Your task to perform on an android device: change text size in settings app Image 0: 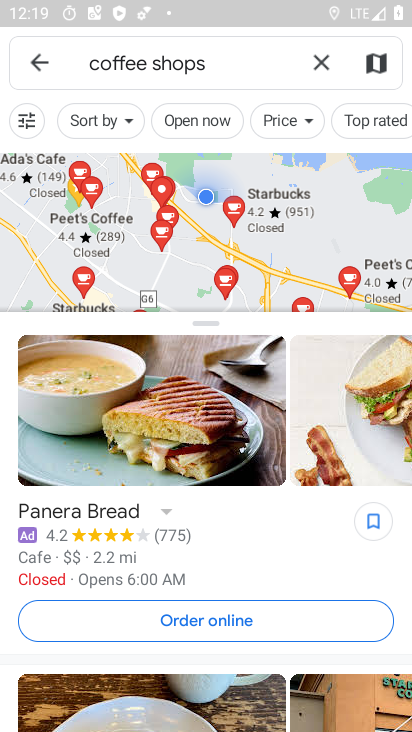
Step 0: press home button
Your task to perform on an android device: change text size in settings app Image 1: 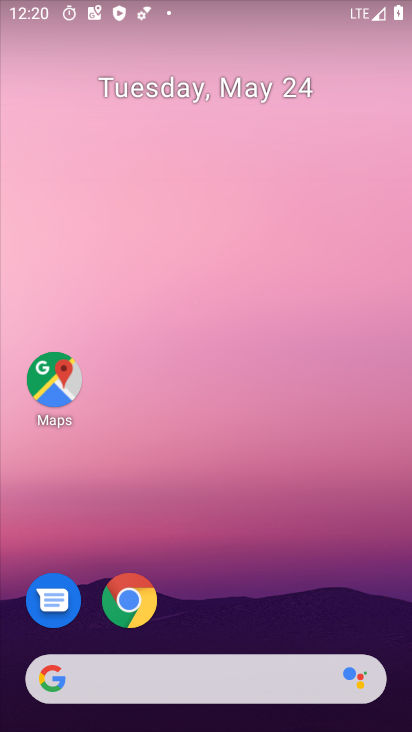
Step 1: drag from (280, 625) to (265, 160)
Your task to perform on an android device: change text size in settings app Image 2: 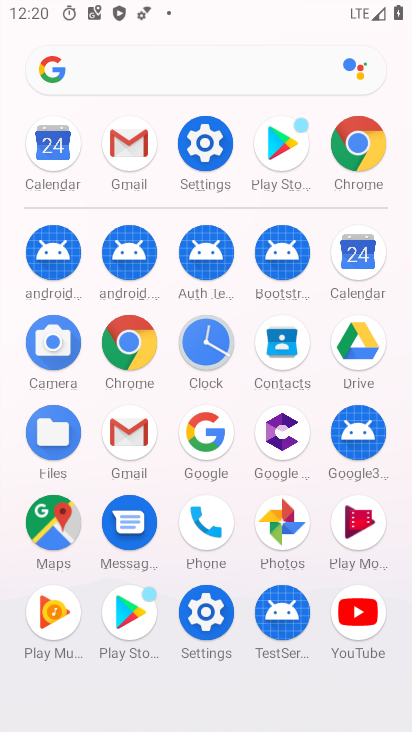
Step 2: click (207, 147)
Your task to perform on an android device: change text size in settings app Image 3: 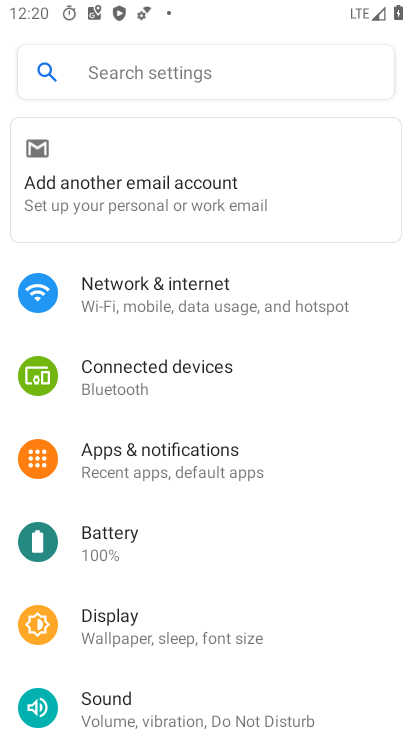
Step 3: drag from (166, 545) to (256, 115)
Your task to perform on an android device: change text size in settings app Image 4: 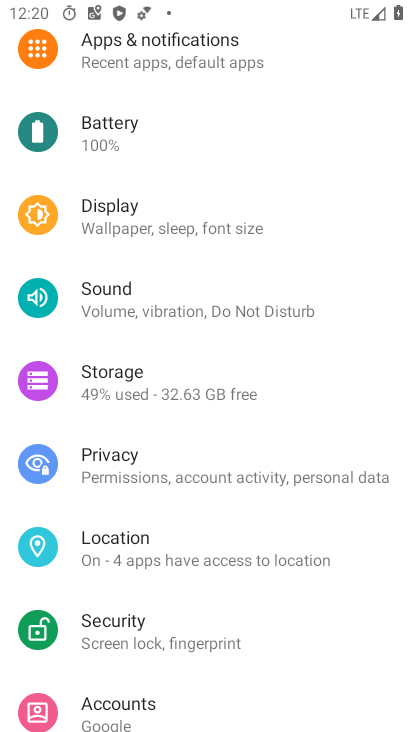
Step 4: drag from (194, 655) to (306, 174)
Your task to perform on an android device: change text size in settings app Image 5: 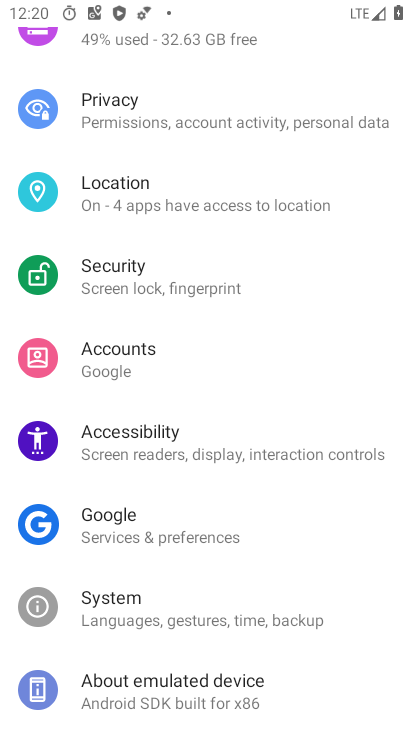
Step 5: click (138, 610)
Your task to perform on an android device: change text size in settings app Image 6: 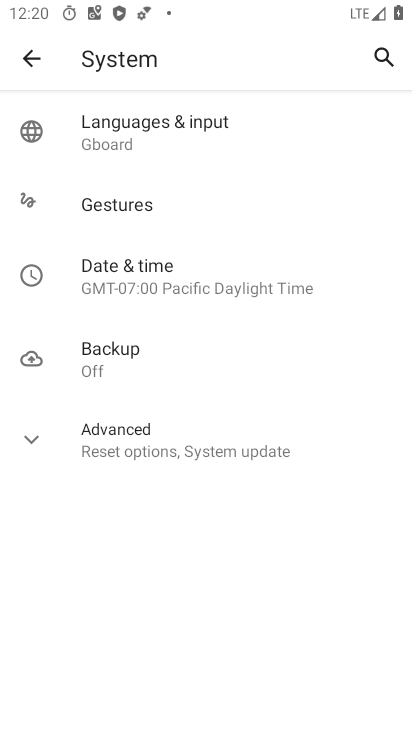
Step 6: click (148, 146)
Your task to perform on an android device: change text size in settings app Image 7: 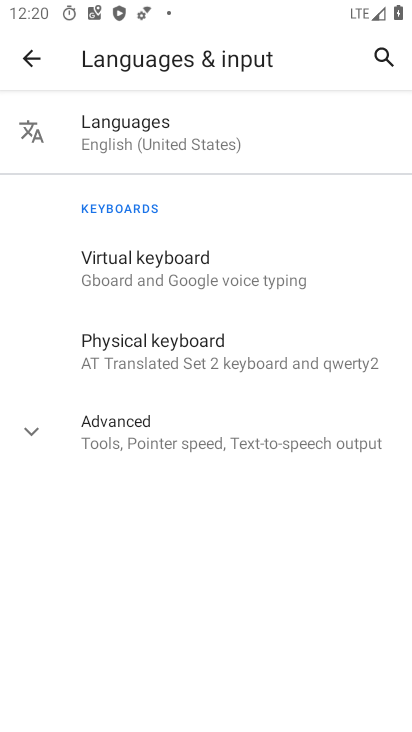
Step 7: click (139, 253)
Your task to perform on an android device: change text size in settings app Image 8: 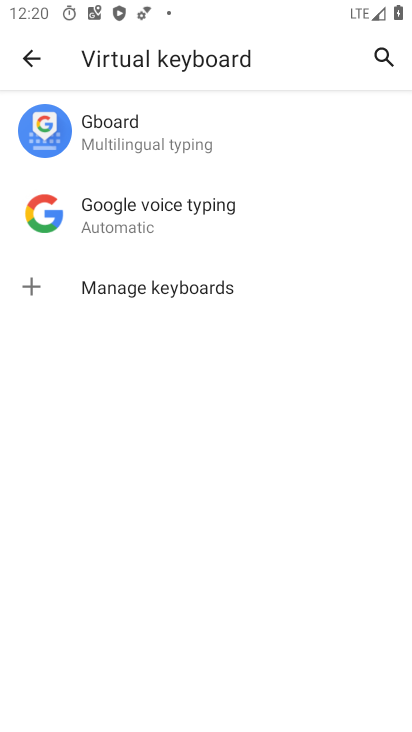
Step 8: click (104, 143)
Your task to perform on an android device: change text size in settings app Image 9: 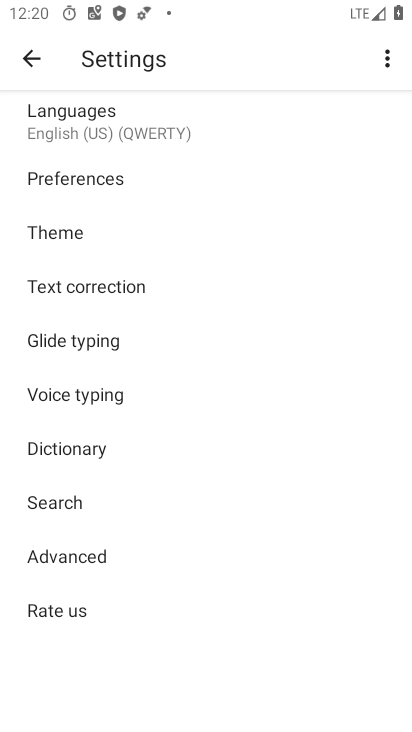
Step 9: click (78, 229)
Your task to perform on an android device: change text size in settings app Image 10: 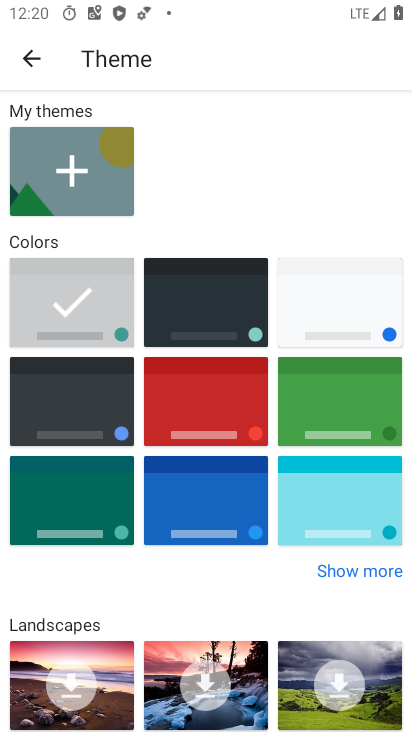
Step 10: click (341, 276)
Your task to perform on an android device: change text size in settings app Image 11: 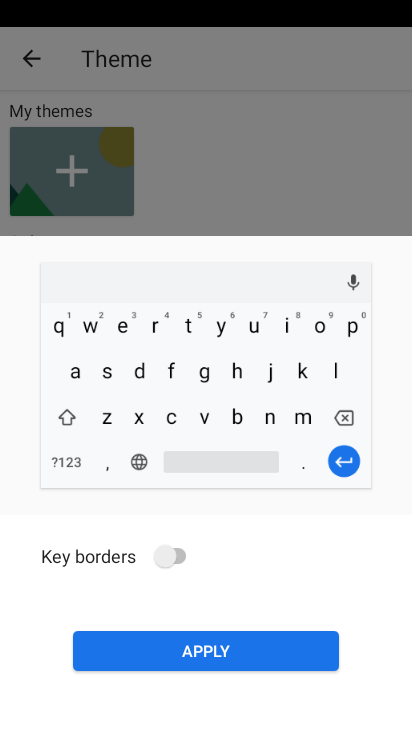
Step 11: click (280, 646)
Your task to perform on an android device: change text size in settings app Image 12: 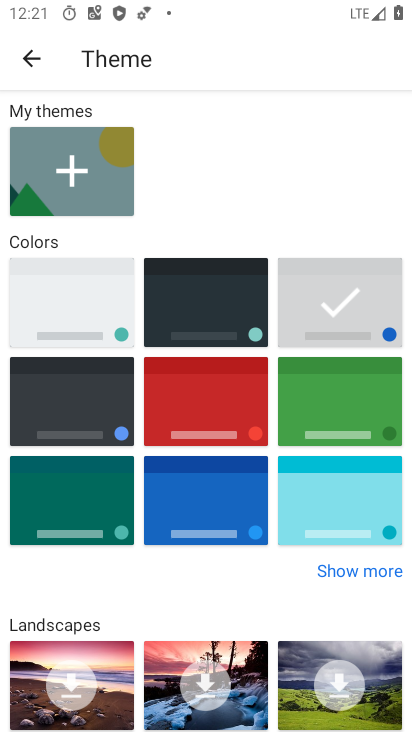
Step 12: task complete